Your task to perform on an android device: Clear the cart on amazon. Add "logitech g pro" to the cart on amazon, then select checkout. Image 0: 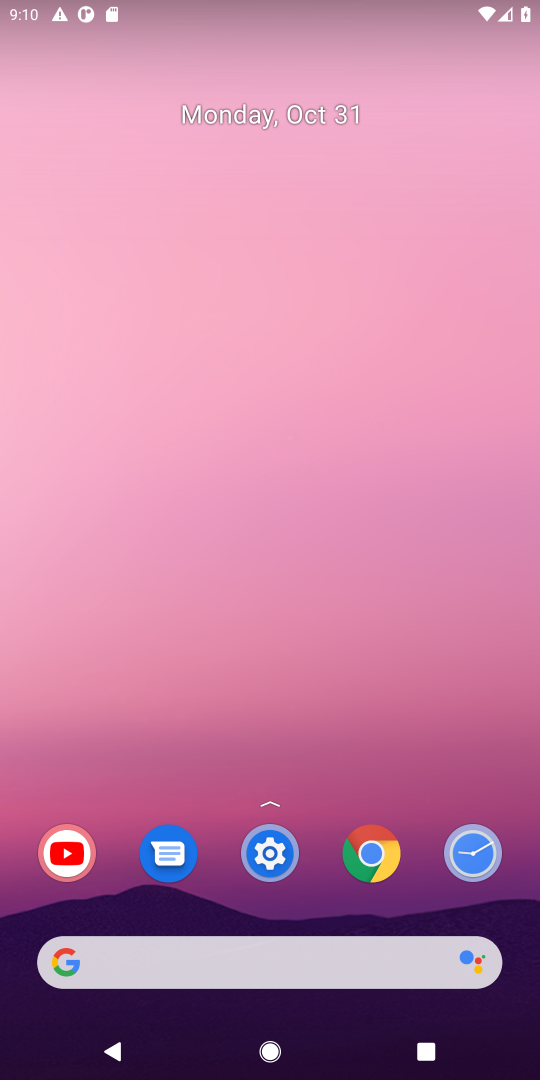
Step 0: click (204, 946)
Your task to perform on an android device: Clear the cart on amazon. Add "logitech g pro" to the cart on amazon, then select checkout. Image 1: 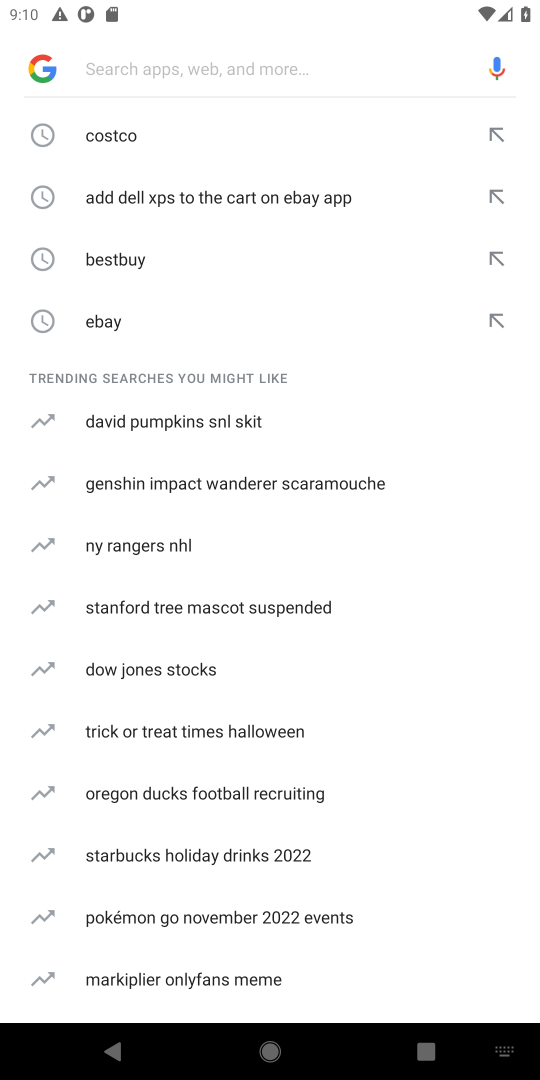
Step 1: type "amazon"
Your task to perform on an android device: Clear the cart on amazon. Add "logitech g pro" to the cart on amazon, then select checkout. Image 2: 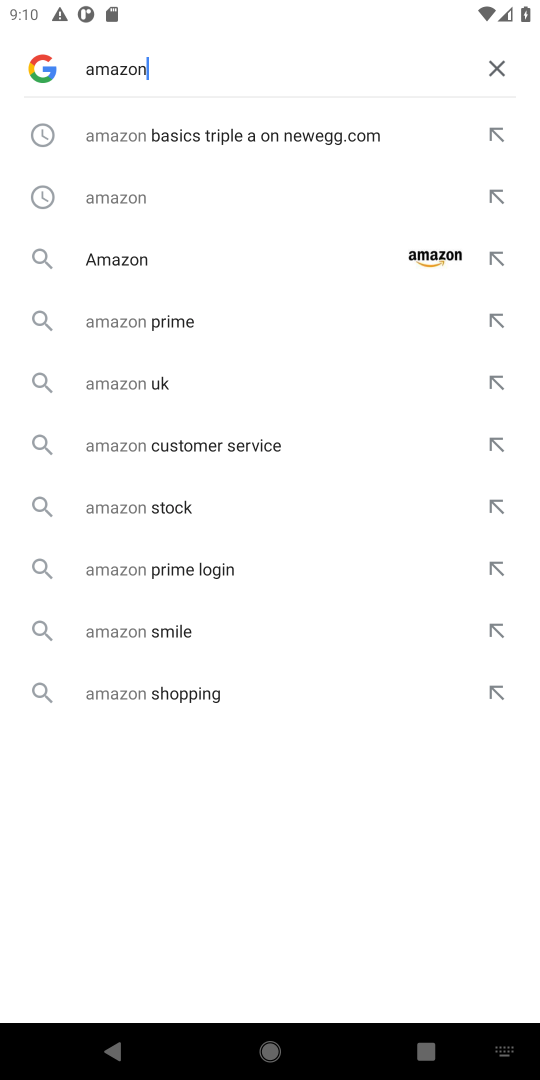
Step 2: click (122, 253)
Your task to perform on an android device: Clear the cart on amazon. Add "logitech g pro" to the cart on amazon, then select checkout. Image 3: 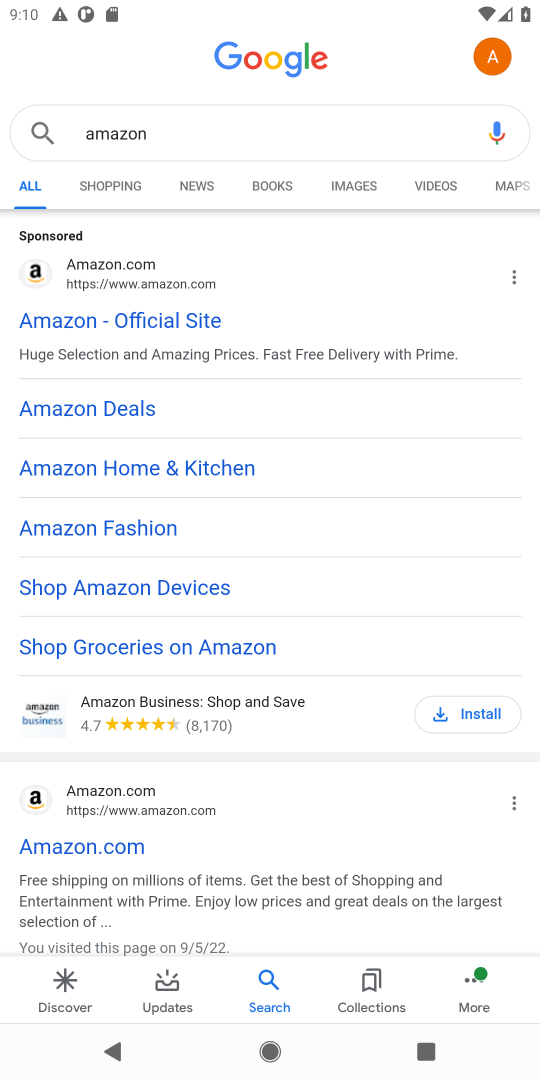
Step 3: click (82, 318)
Your task to perform on an android device: Clear the cart on amazon. Add "logitech g pro" to the cart on amazon, then select checkout. Image 4: 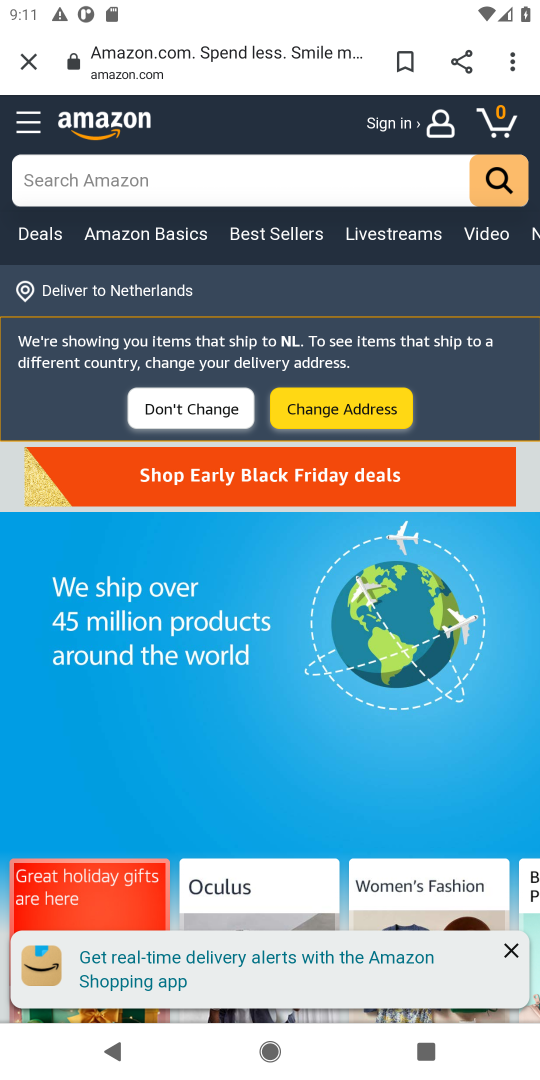
Step 4: click (496, 119)
Your task to perform on an android device: Clear the cart on amazon. Add "logitech g pro" to the cart on amazon, then select checkout. Image 5: 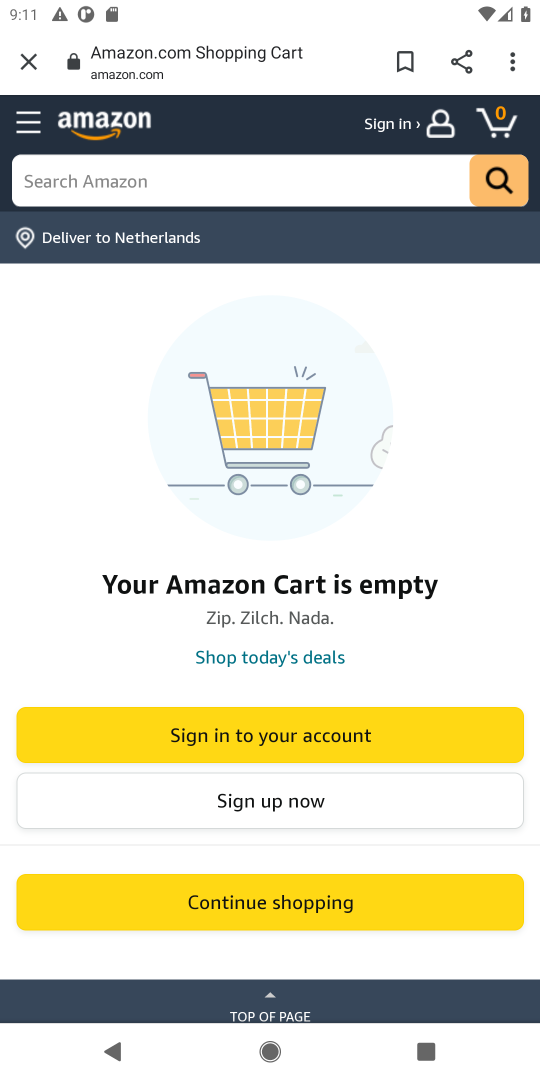
Step 5: click (169, 175)
Your task to perform on an android device: Clear the cart on amazon. Add "logitech g pro" to the cart on amazon, then select checkout. Image 6: 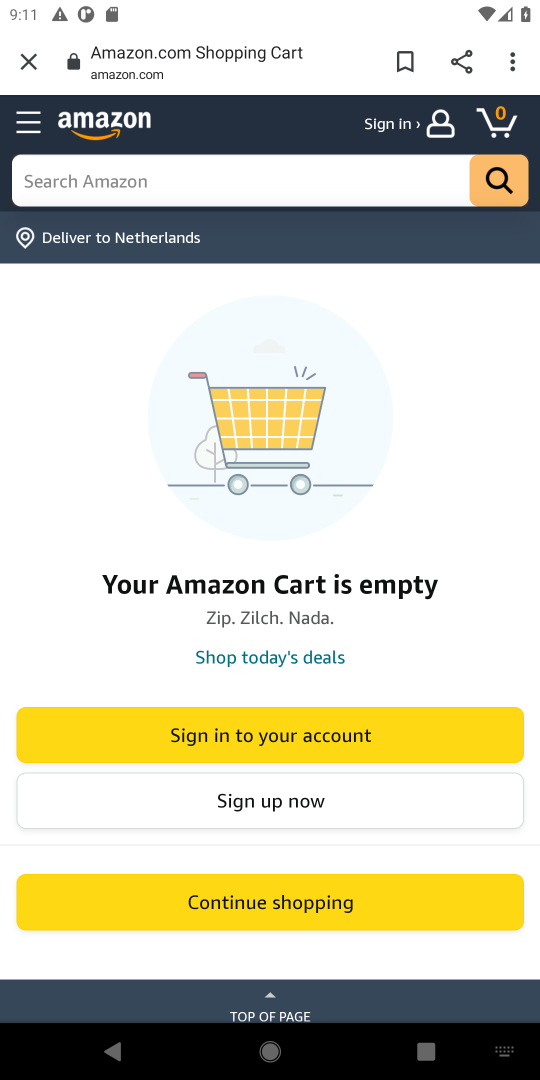
Step 6: click (261, 918)
Your task to perform on an android device: Clear the cart on amazon. Add "logitech g pro" to the cart on amazon, then select checkout. Image 7: 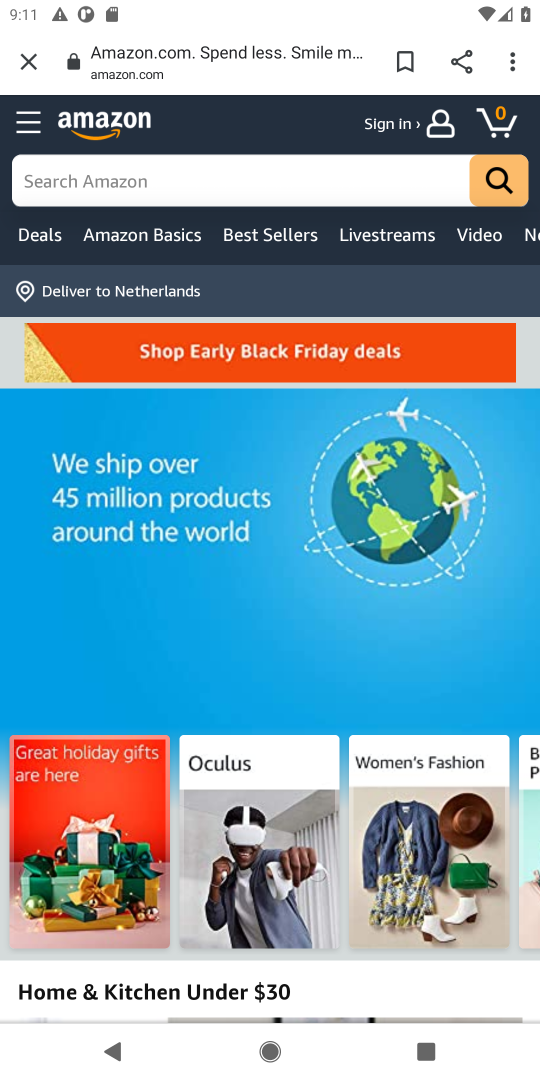
Step 7: click (68, 174)
Your task to perform on an android device: Clear the cart on amazon. Add "logitech g pro" to the cart on amazon, then select checkout. Image 8: 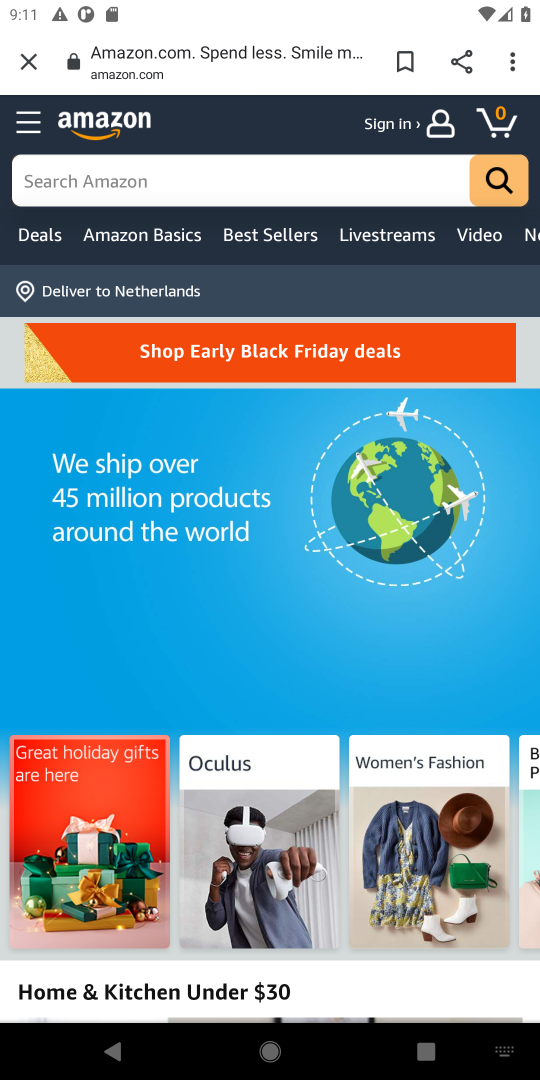
Step 8: type "logitech g pro"
Your task to perform on an android device: Clear the cart on amazon. Add "logitech g pro" to the cart on amazon, then select checkout. Image 9: 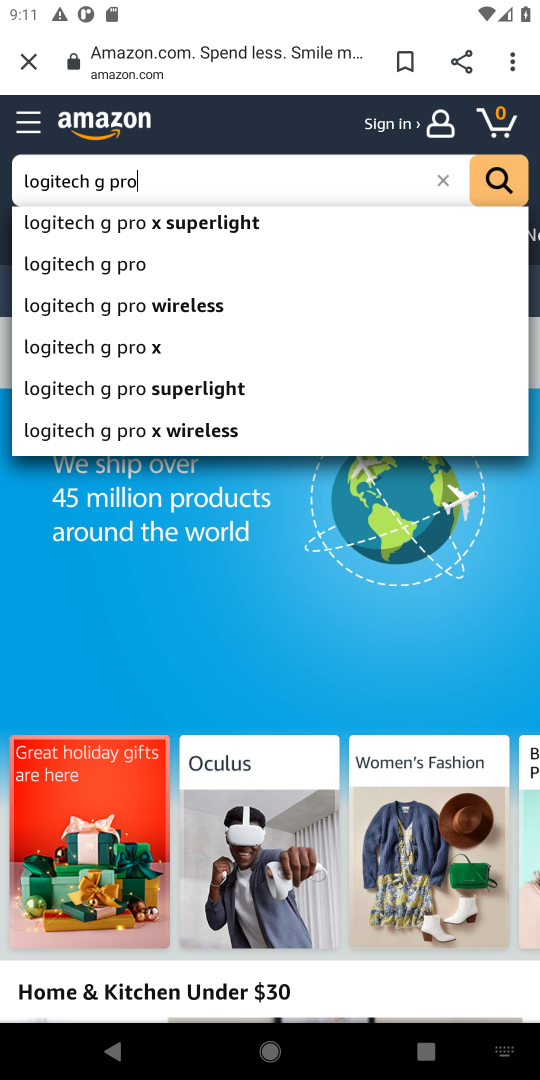
Step 9: click (82, 266)
Your task to perform on an android device: Clear the cart on amazon. Add "logitech g pro" to the cart on amazon, then select checkout. Image 10: 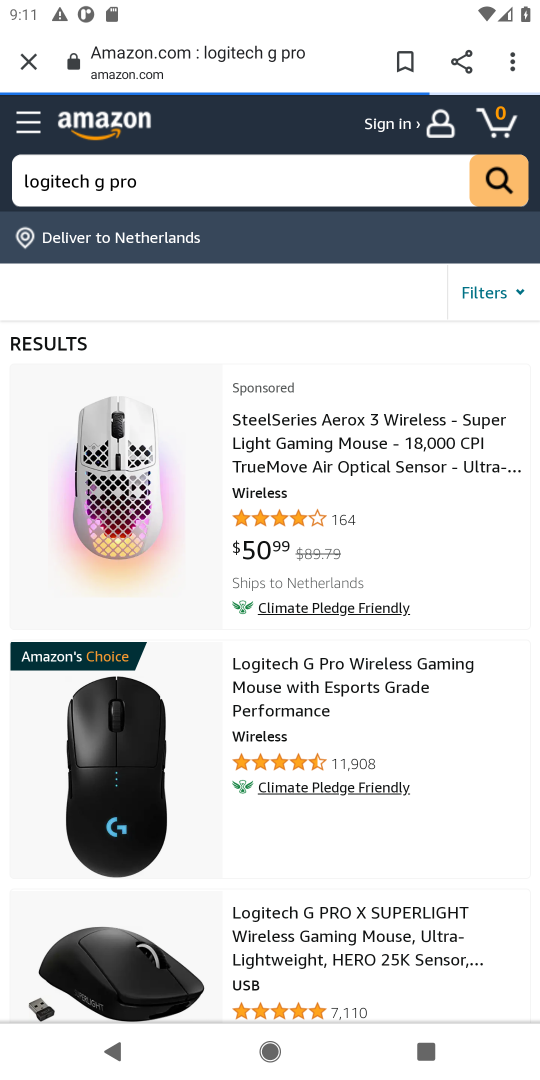
Step 10: click (350, 441)
Your task to perform on an android device: Clear the cart on amazon. Add "logitech g pro" to the cart on amazon, then select checkout. Image 11: 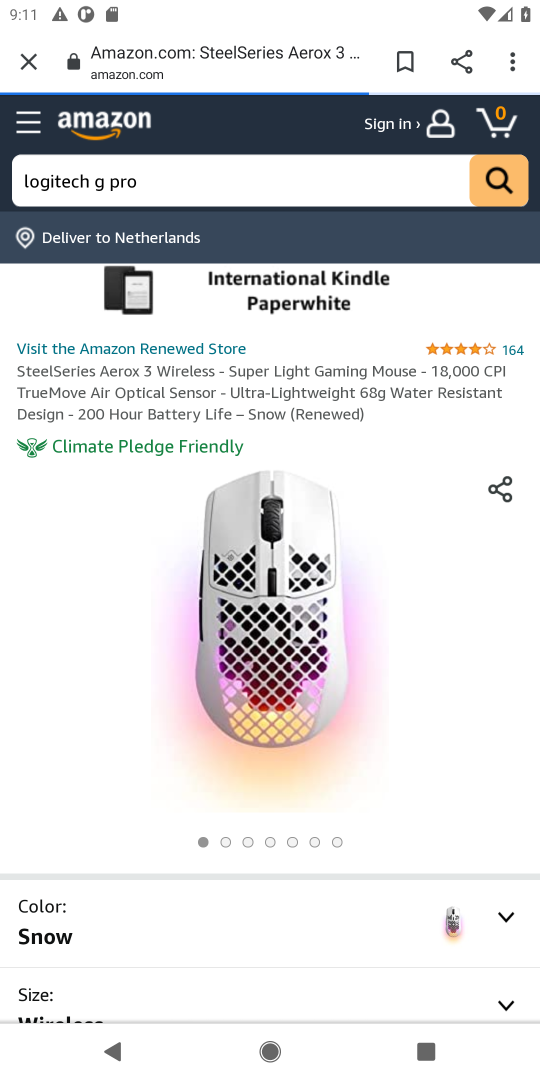
Step 11: drag from (452, 744) to (412, 431)
Your task to perform on an android device: Clear the cart on amazon. Add "logitech g pro" to the cart on amazon, then select checkout. Image 12: 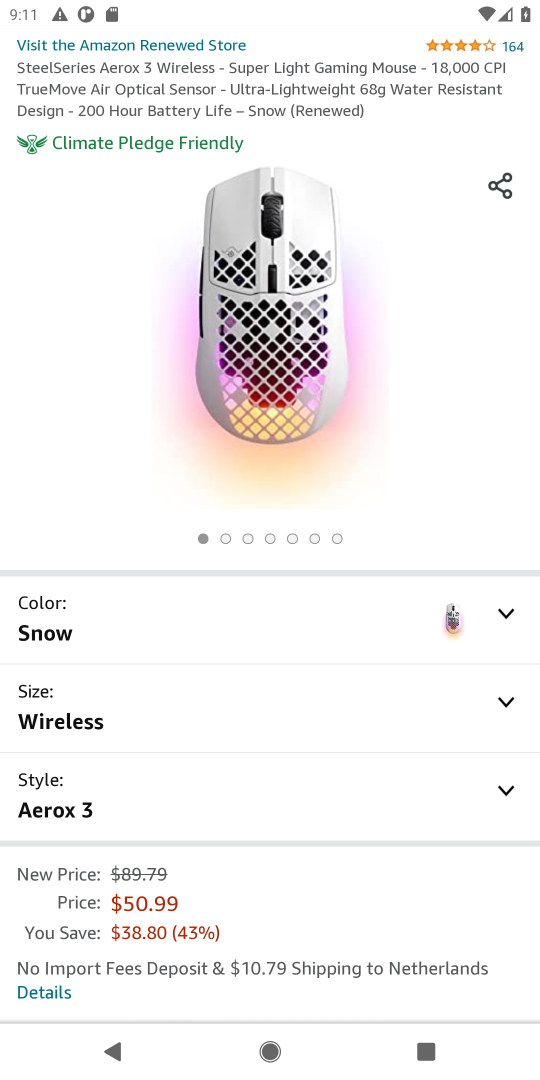
Step 12: drag from (358, 792) to (324, 307)
Your task to perform on an android device: Clear the cart on amazon. Add "logitech g pro" to the cart on amazon, then select checkout. Image 13: 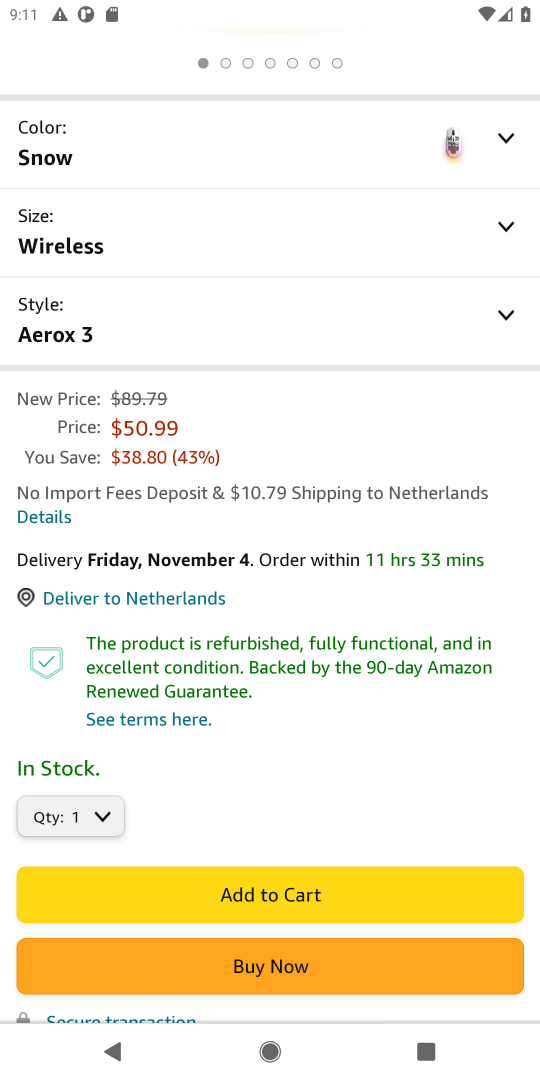
Step 13: click (289, 892)
Your task to perform on an android device: Clear the cart on amazon. Add "logitech g pro" to the cart on amazon, then select checkout. Image 14: 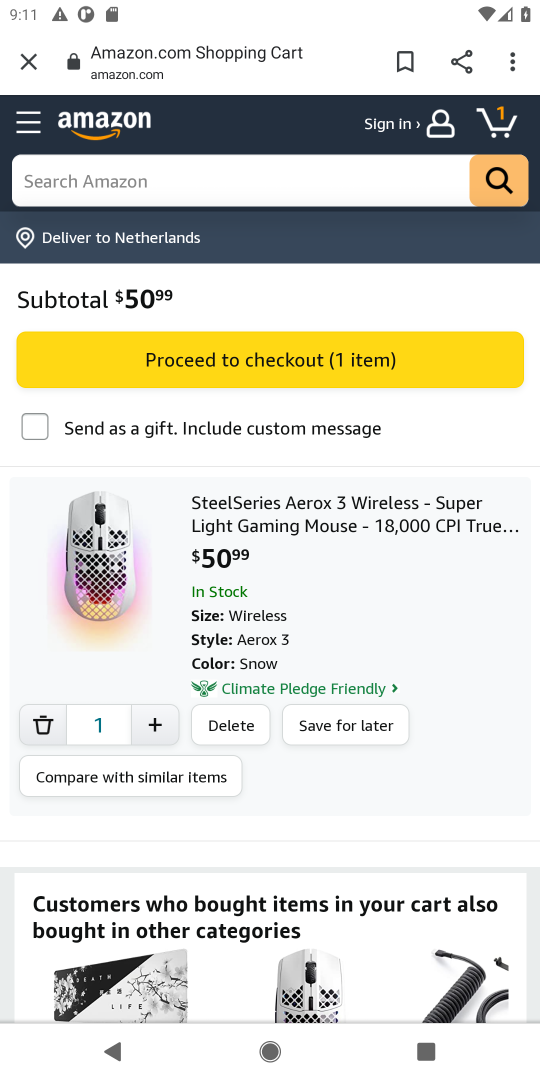
Step 14: drag from (448, 717) to (440, 667)
Your task to perform on an android device: Clear the cart on amazon. Add "logitech g pro" to the cart on amazon, then select checkout. Image 15: 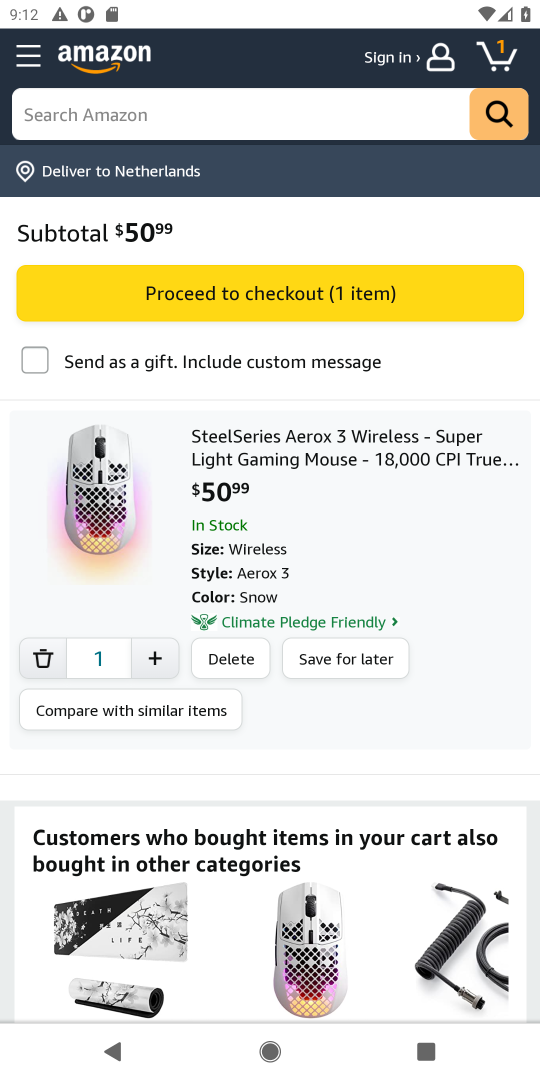
Step 15: click (256, 299)
Your task to perform on an android device: Clear the cart on amazon. Add "logitech g pro" to the cart on amazon, then select checkout. Image 16: 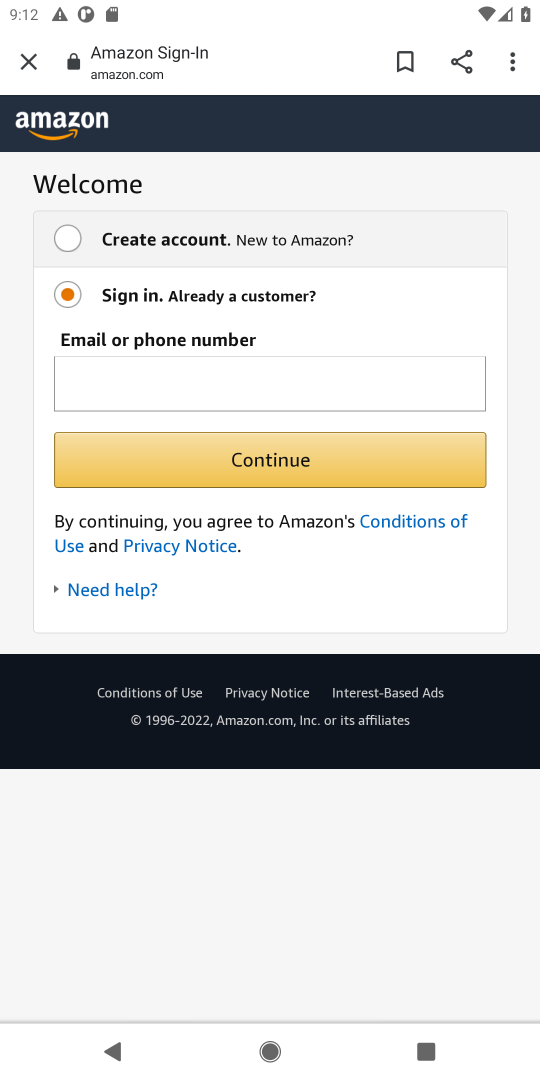
Step 16: task complete